Your task to perform on an android device: Search for Italian restaurants on Maps Image 0: 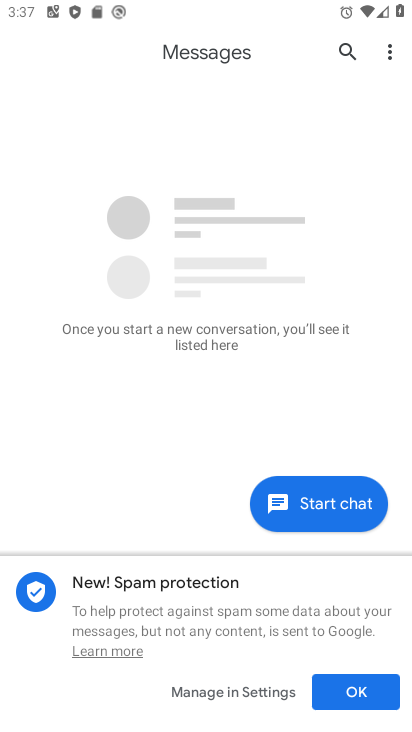
Step 0: press home button
Your task to perform on an android device: Search for Italian restaurants on Maps Image 1: 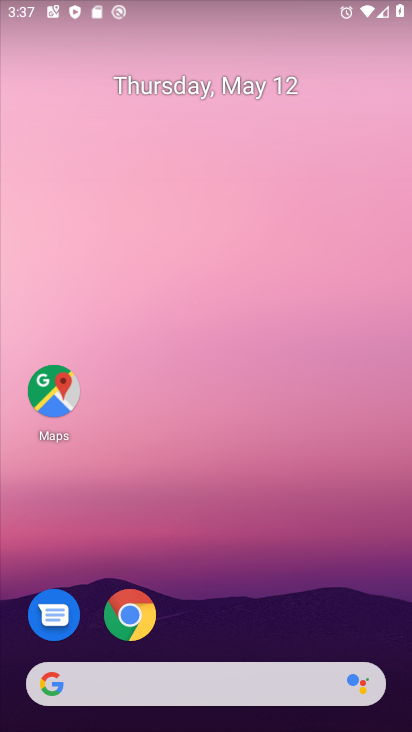
Step 1: click (49, 393)
Your task to perform on an android device: Search for Italian restaurants on Maps Image 2: 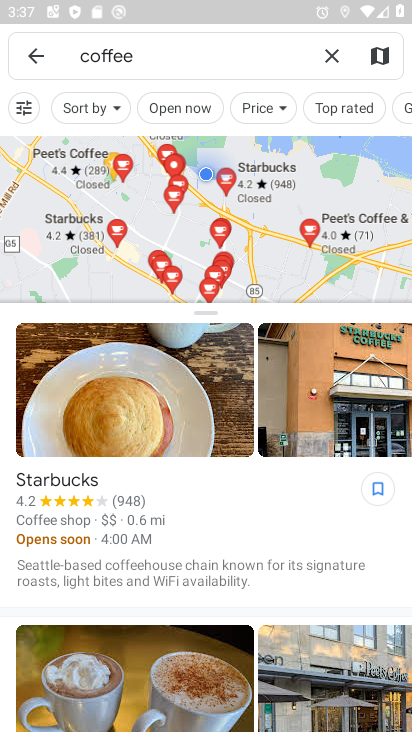
Step 2: click (324, 58)
Your task to perform on an android device: Search for Italian restaurants on Maps Image 3: 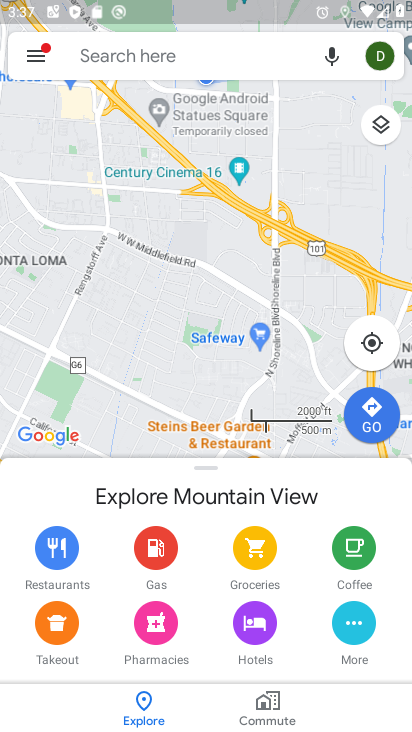
Step 3: click (132, 35)
Your task to perform on an android device: Search for Italian restaurants on Maps Image 4: 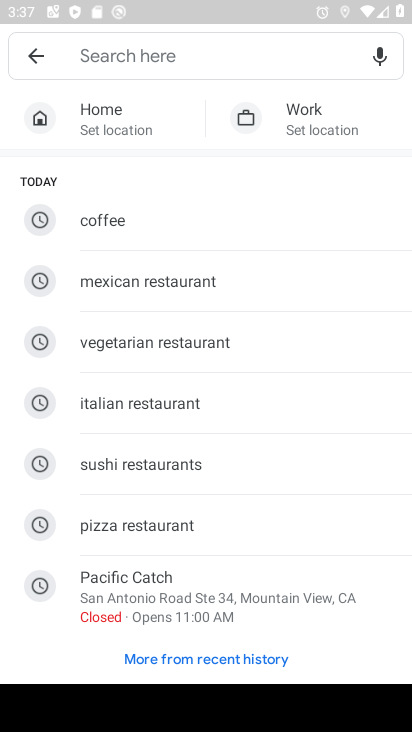
Step 4: click (84, 405)
Your task to perform on an android device: Search for Italian restaurants on Maps Image 5: 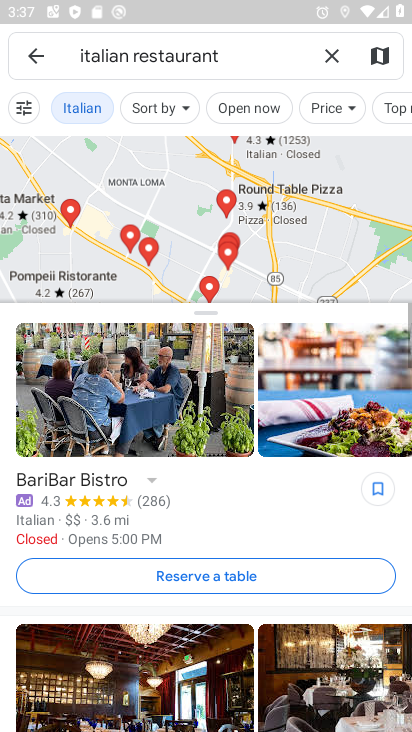
Step 5: task complete